Your task to perform on an android device: toggle data saver in the chrome app Image 0: 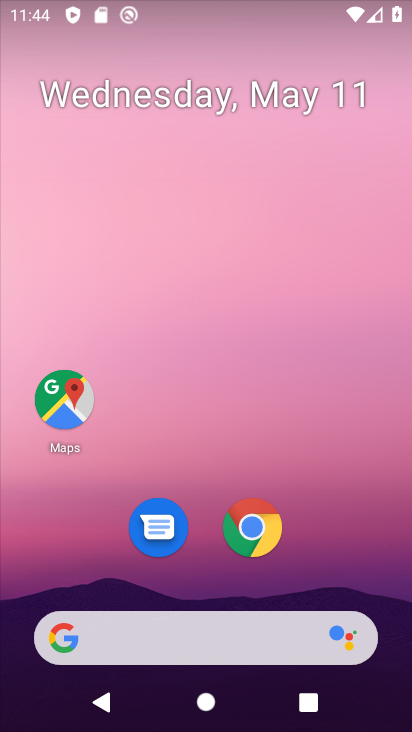
Step 0: click (242, 553)
Your task to perform on an android device: toggle data saver in the chrome app Image 1: 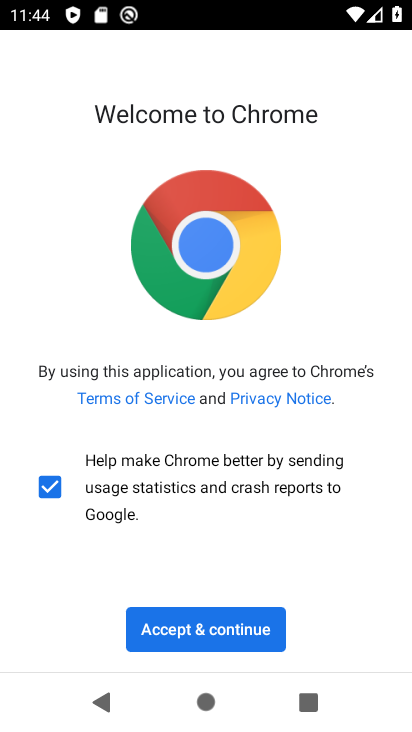
Step 1: click (186, 629)
Your task to perform on an android device: toggle data saver in the chrome app Image 2: 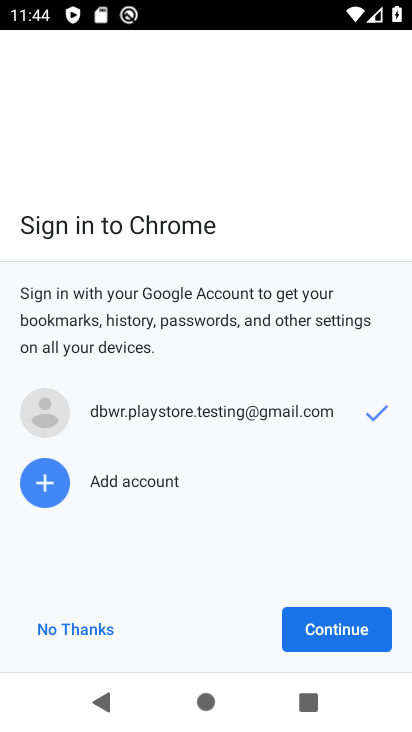
Step 2: click (351, 632)
Your task to perform on an android device: toggle data saver in the chrome app Image 3: 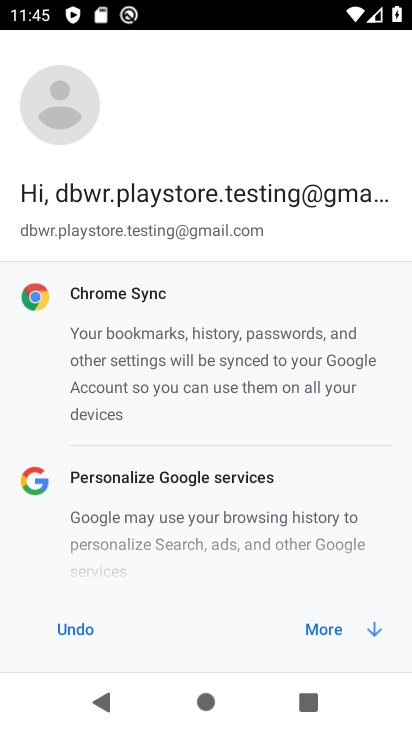
Step 3: click (351, 632)
Your task to perform on an android device: toggle data saver in the chrome app Image 4: 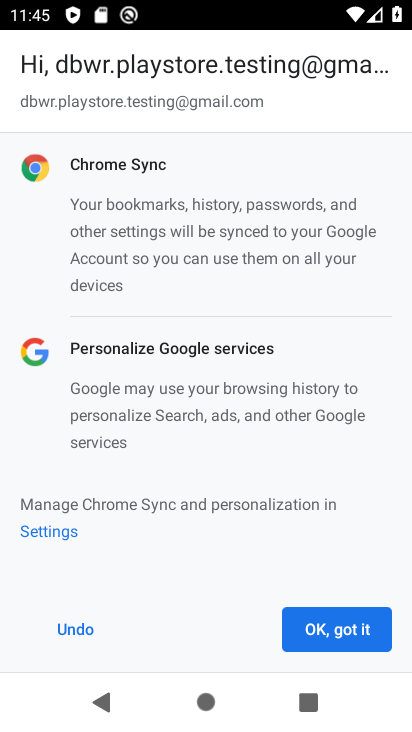
Step 4: click (351, 632)
Your task to perform on an android device: toggle data saver in the chrome app Image 5: 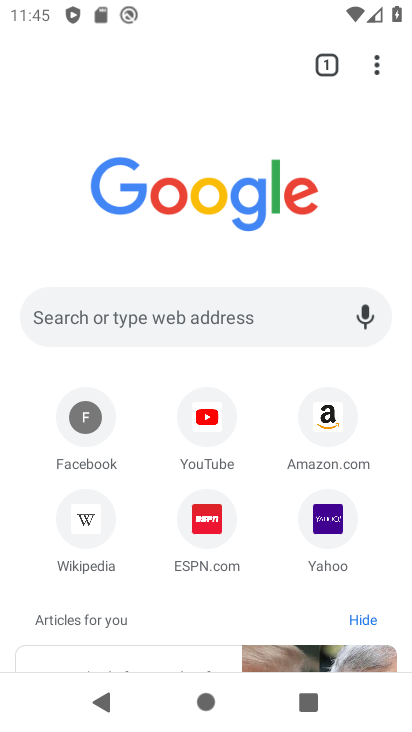
Step 5: click (384, 65)
Your task to perform on an android device: toggle data saver in the chrome app Image 6: 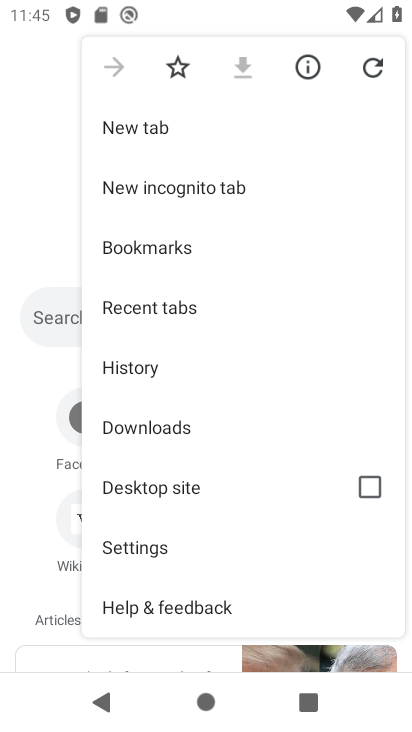
Step 6: click (147, 532)
Your task to perform on an android device: toggle data saver in the chrome app Image 7: 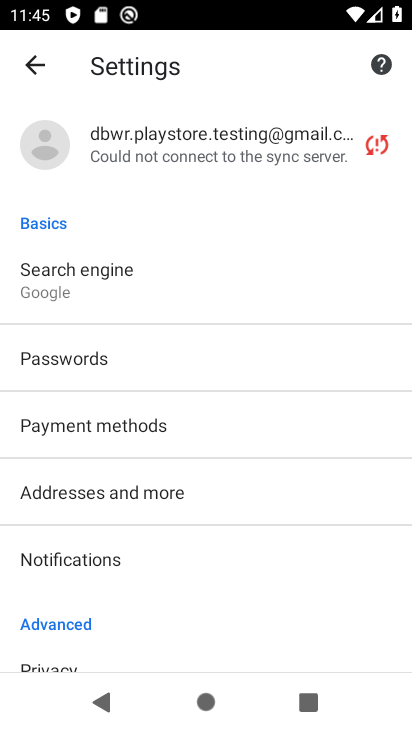
Step 7: drag from (193, 572) to (165, 215)
Your task to perform on an android device: toggle data saver in the chrome app Image 8: 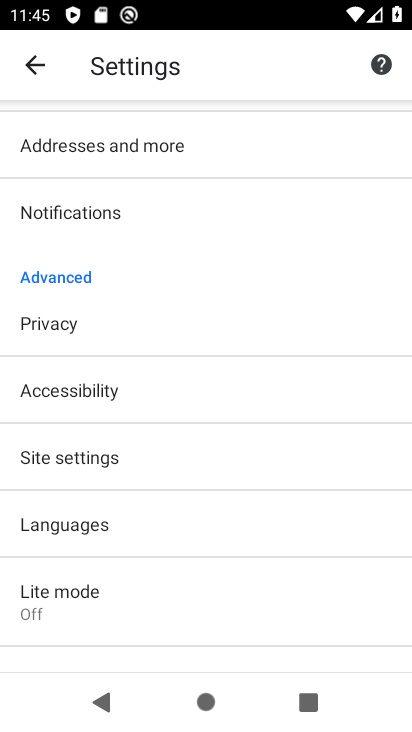
Step 8: click (71, 600)
Your task to perform on an android device: toggle data saver in the chrome app Image 9: 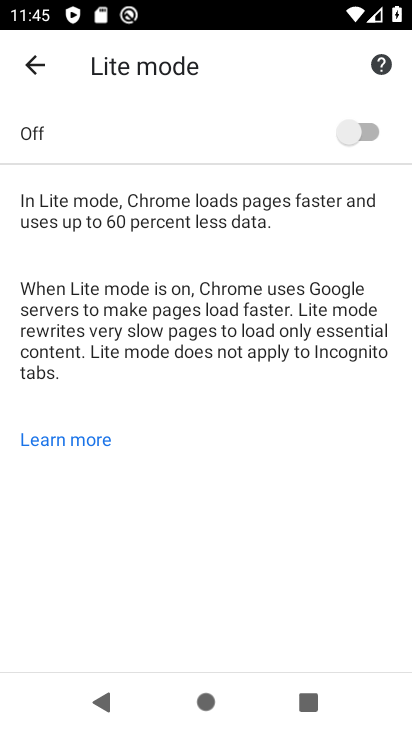
Step 9: click (340, 136)
Your task to perform on an android device: toggle data saver in the chrome app Image 10: 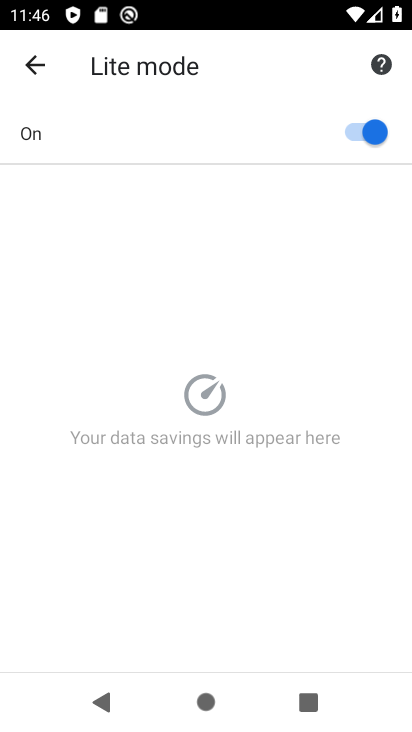
Step 10: task complete